Your task to perform on an android device: Clear the cart on amazon. Add energizer triple a to the cart on amazon Image 0: 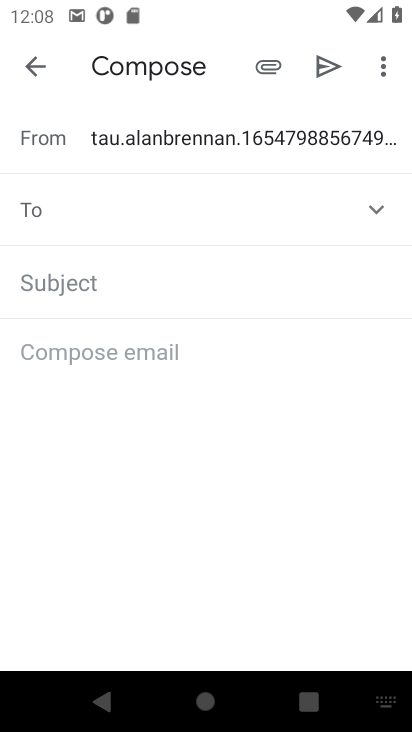
Step 0: press home button
Your task to perform on an android device: Clear the cart on amazon. Add energizer triple a to the cart on amazon Image 1: 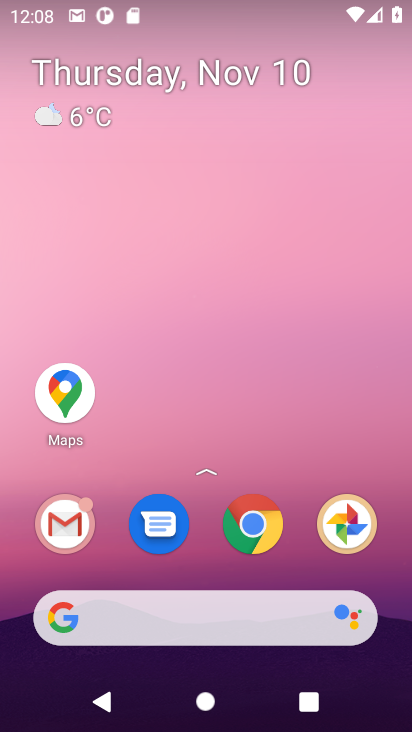
Step 1: click (252, 522)
Your task to perform on an android device: Clear the cart on amazon. Add energizer triple a to the cart on amazon Image 2: 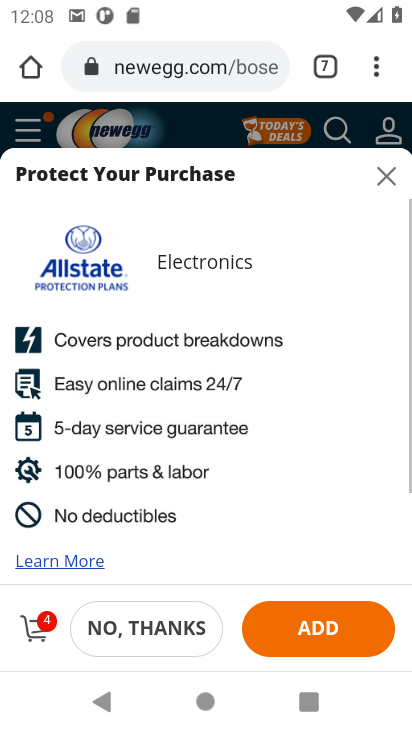
Step 2: click (322, 74)
Your task to perform on an android device: Clear the cart on amazon. Add energizer triple a to the cart on amazon Image 3: 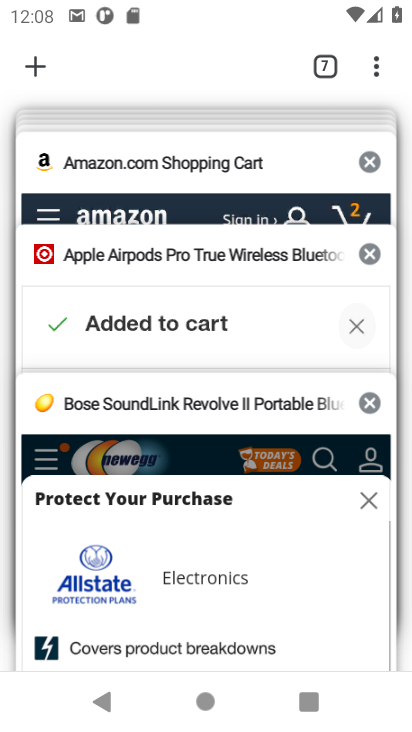
Step 3: click (194, 200)
Your task to perform on an android device: Clear the cart on amazon. Add energizer triple a to the cart on amazon Image 4: 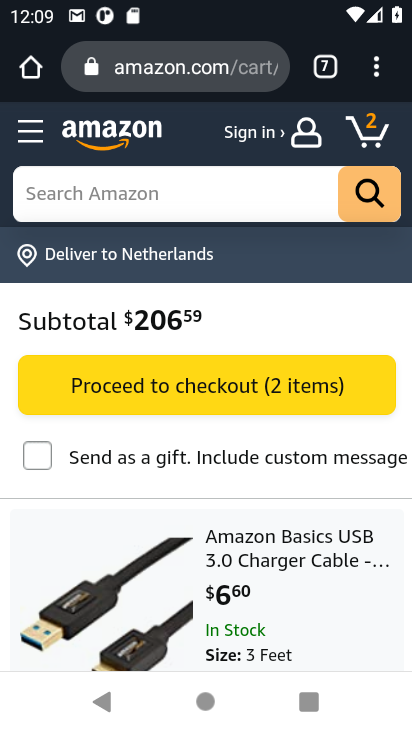
Step 4: click (120, 192)
Your task to perform on an android device: Clear the cart on amazon. Add energizer triple a to the cart on amazon Image 5: 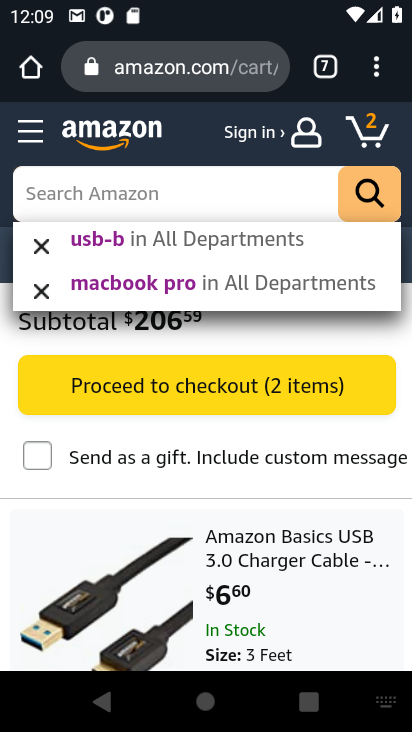
Step 5: type "energizer triple a"
Your task to perform on an android device: Clear the cart on amazon. Add energizer triple a to the cart on amazon Image 6: 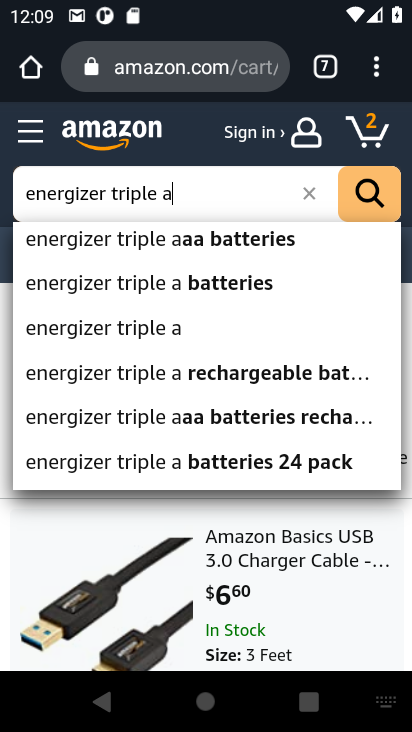
Step 6: click (168, 238)
Your task to perform on an android device: Clear the cart on amazon. Add energizer triple a to the cart on amazon Image 7: 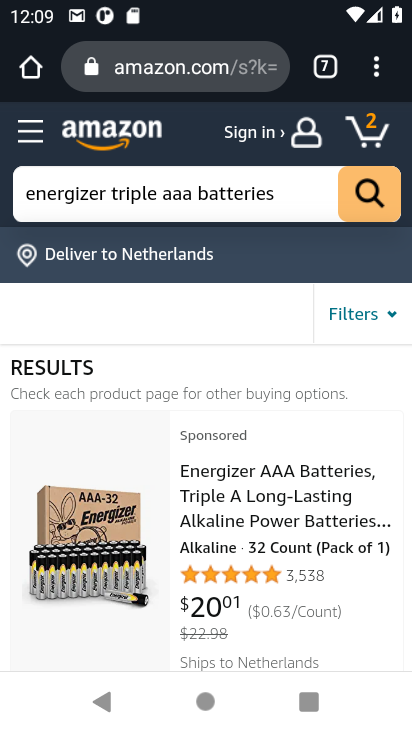
Step 7: click (257, 523)
Your task to perform on an android device: Clear the cart on amazon. Add energizer triple a to the cart on amazon Image 8: 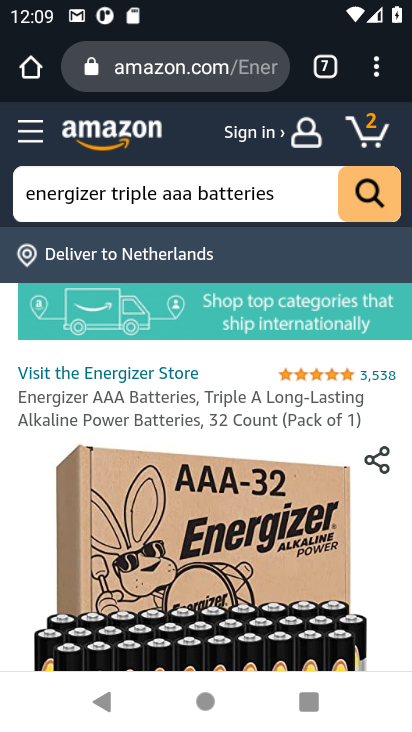
Step 8: drag from (363, 578) to (397, 31)
Your task to perform on an android device: Clear the cart on amazon. Add energizer triple a to the cart on amazon Image 9: 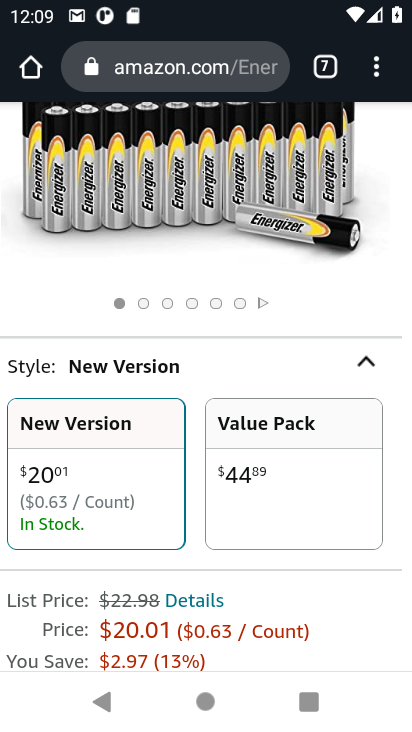
Step 9: drag from (277, 574) to (398, 159)
Your task to perform on an android device: Clear the cart on amazon. Add energizer triple a to the cart on amazon Image 10: 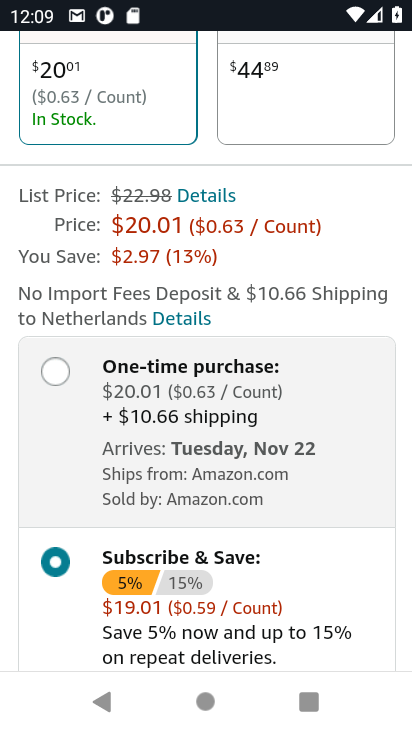
Step 10: drag from (257, 575) to (301, 239)
Your task to perform on an android device: Clear the cart on amazon. Add energizer triple a to the cart on amazon Image 11: 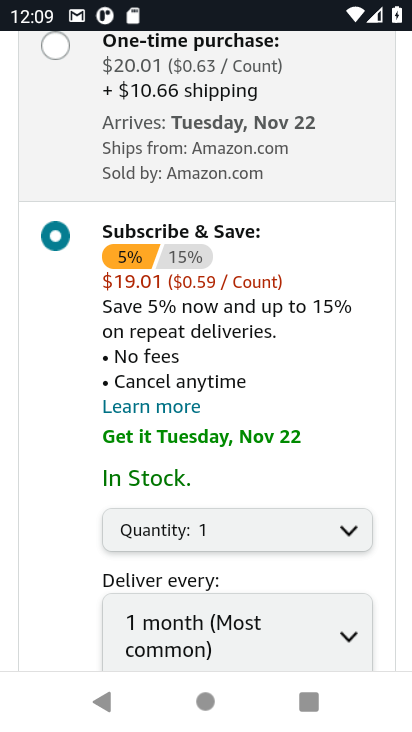
Step 11: drag from (257, 464) to (347, 118)
Your task to perform on an android device: Clear the cart on amazon. Add energizer triple a to the cart on amazon Image 12: 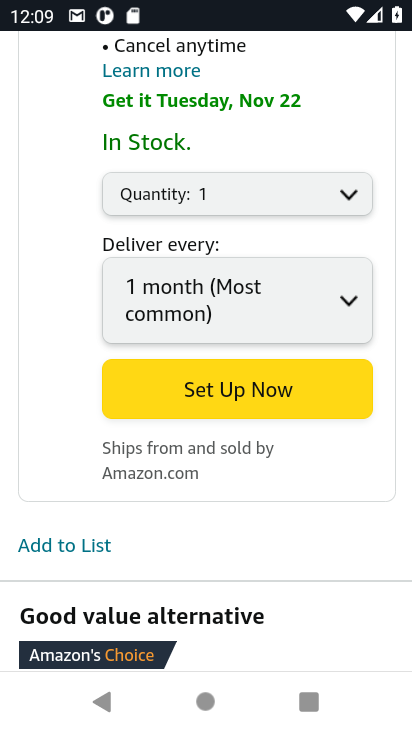
Step 12: drag from (229, 624) to (266, 274)
Your task to perform on an android device: Clear the cart on amazon. Add energizer triple a to the cart on amazon Image 13: 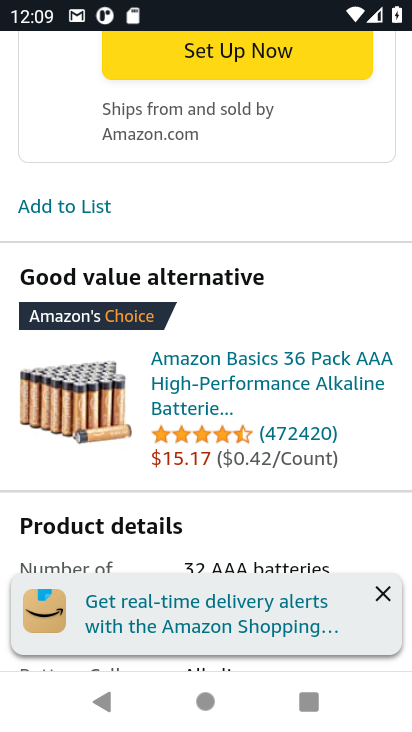
Step 13: click (318, 381)
Your task to perform on an android device: Clear the cart on amazon. Add energizer triple a to the cart on amazon Image 14: 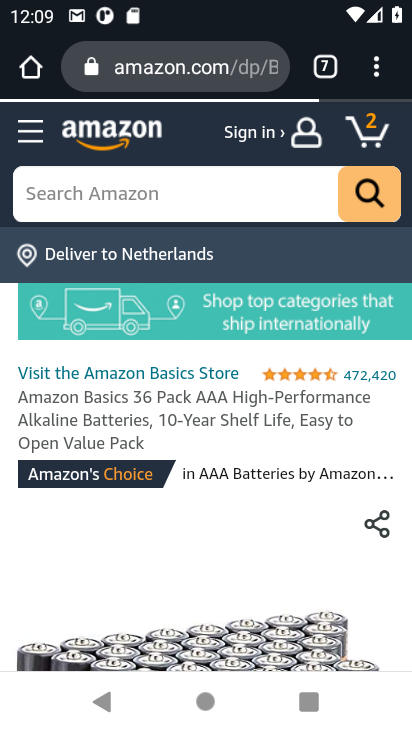
Step 14: drag from (277, 532) to (290, 318)
Your task to perform on an android device: Clear the cart on amazon. Add energizer triple a to the cart on amazon Image 15: 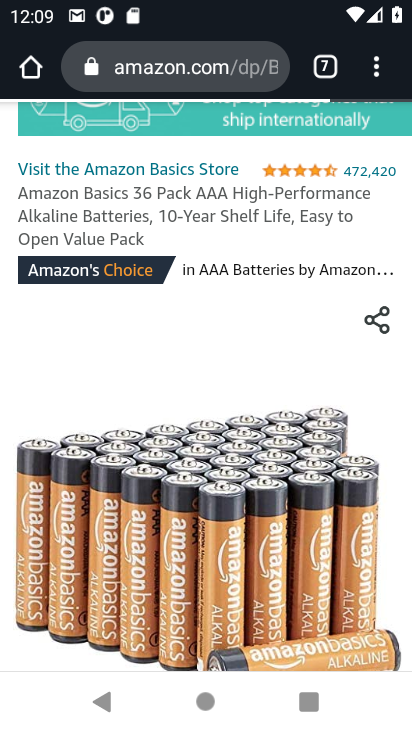
Step 15: drag from (289, 370) to (403, 100)
Your task to perform on an android device: Clear the cart on amazon. Add energizer triple a to the cart on amazon Image 16: 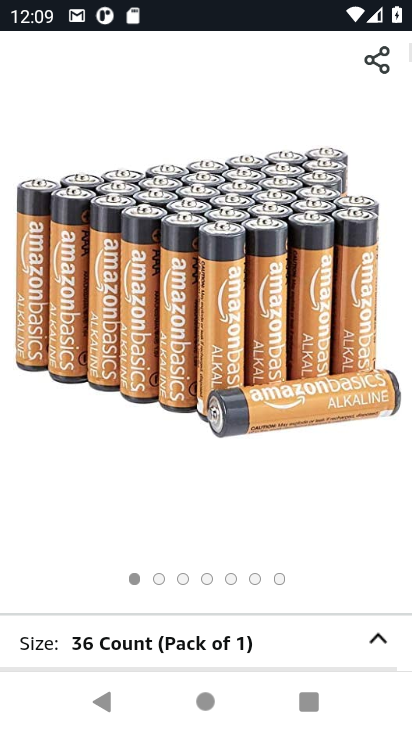
Step 16: drag from (265, 461) to (396, 223)
Your task to perform on an android device: Clear the cart on amazon. Add energizer triple a to the cart on amazon Image 17: 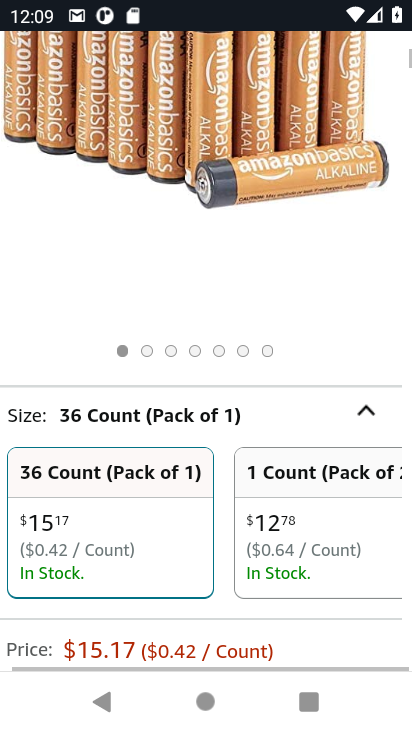
Step 17: drag from (229, 493) to (362, 165)
Your task to perform on an android device: Clear the cart on amazon. Add energizer triple a to the cart on amazon Image 18: 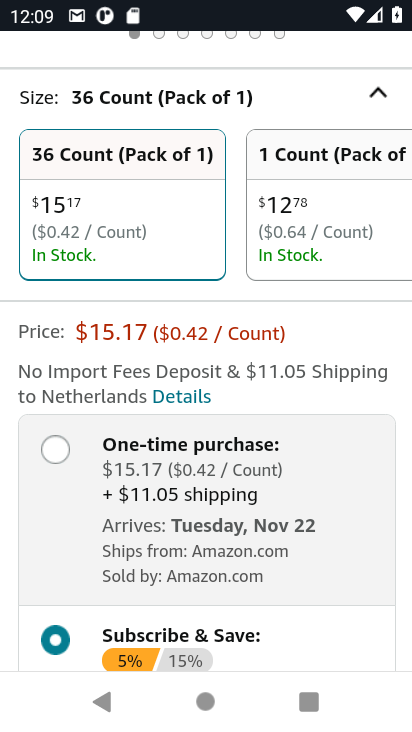
Step 18: drag from (251, 571) to (357, 513)
Your task to perform on an android device: Clear the cart on amazon. Add energizer triple a to the cart on amazon Image 19: 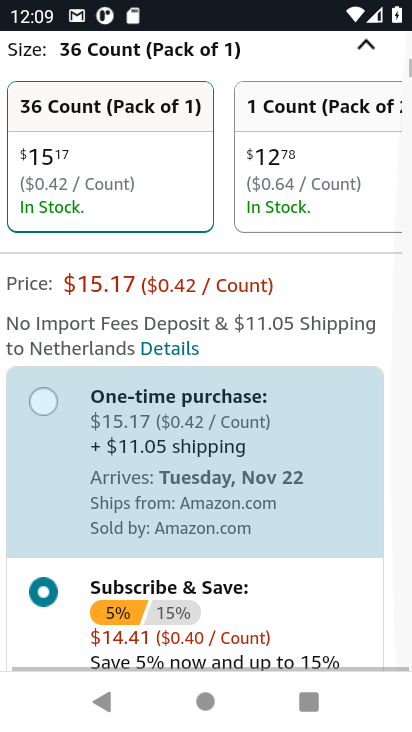
Step 19: drag from (217, 506) to (408, 208)
Your task to perform on an android device: Clear the cart on amazon. Add energizer triple a to the cart on amazon Image 20: 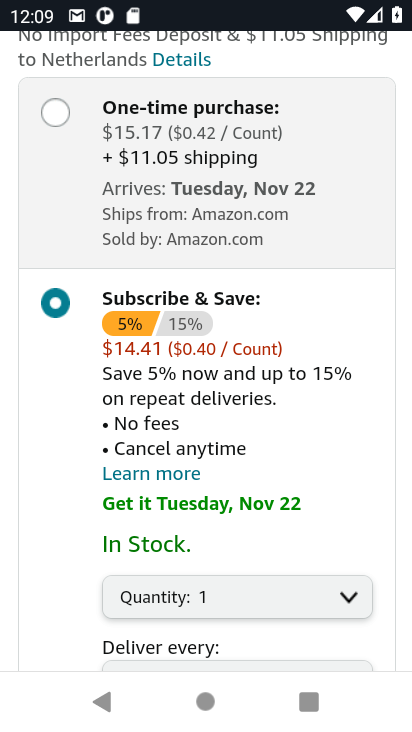
Step 20: drag from (224, 495) to (293, 348)
Your task to perform on an android device: Clear the cart on amazon. Add energizer triple a to the cart on amazon Image 21: 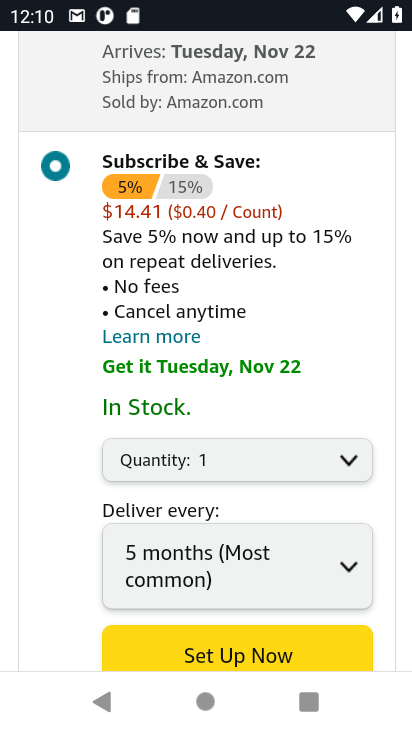
Step 21: drag from (279, 395) to (380, 106)
Your task to perform on an android device: Clear the cart on amazon. Add energizer triple a to the cart on amazon Image 22: 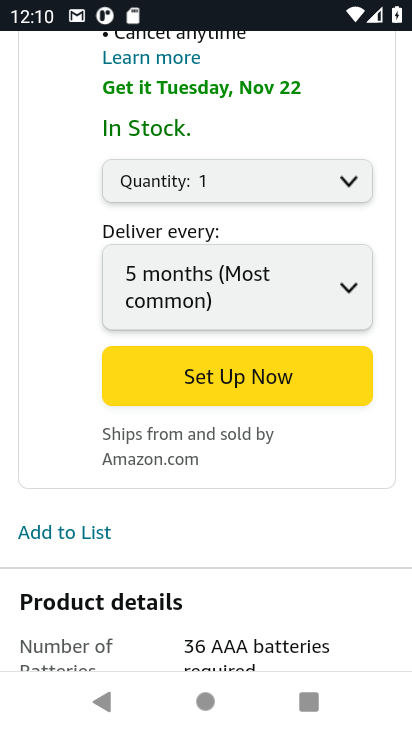
Step 22: drag from (258, 571) to (355, 290)
Your task to perform on an android device: Clear the cart on amazon. Add energizer triple a to the cart on amazon Image 23: 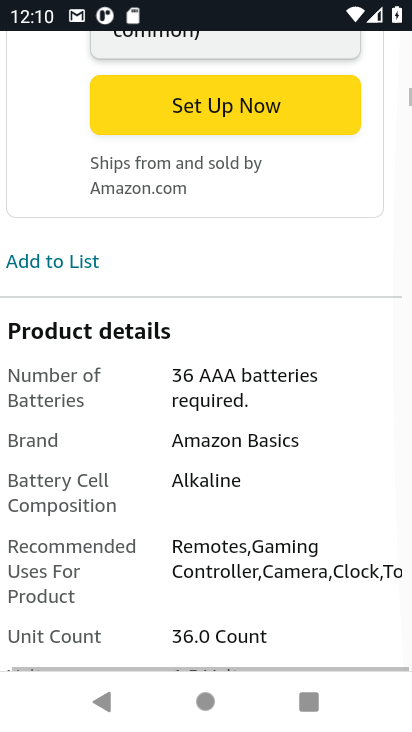
Step 23: drag from (262, 507) to (345, 171)
Your task to perform on an android device: Clear the cart on amazon. Add energizer triple a to the cart on amazon Image 24: 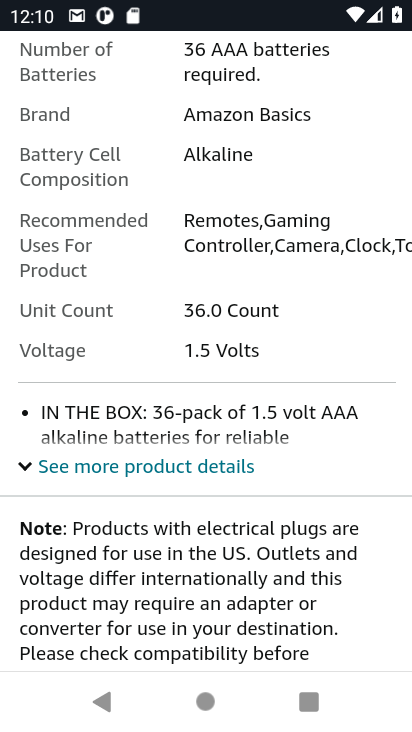
Step 24: drag from (205, 557) to (339, 235)
Your task to perform on an android device: Clear the cart on amazon. Add energizer triple a to the cart on amazon Image 25: 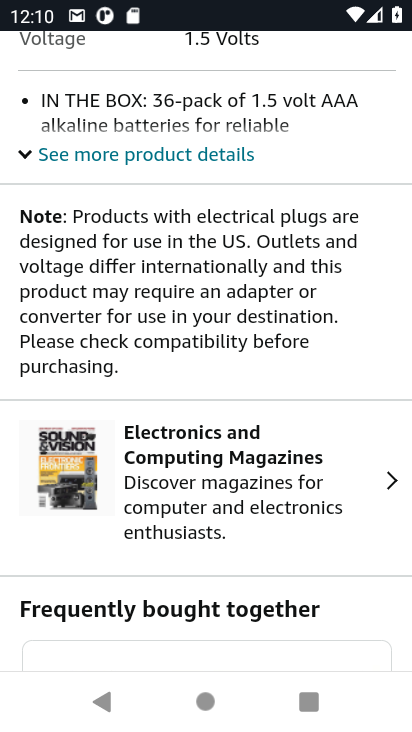
Step 25: drag from (266, 554) to (361, 198)
Your task to perform on an android device: Clear the cart on amazon. Add energizer triple a to the cart on amazon Image 26: 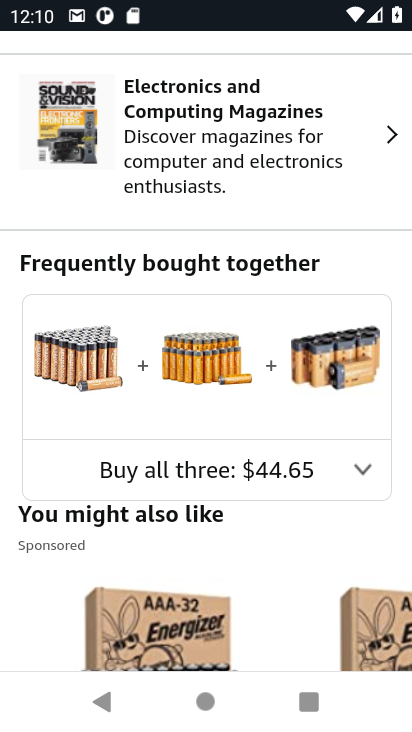
Step 26: drag from (247, 457) to (394, 167)
Your task to perform on an android device: Clear the cart on amazon. Add energizer triple a to the cart on amazon Image 27: 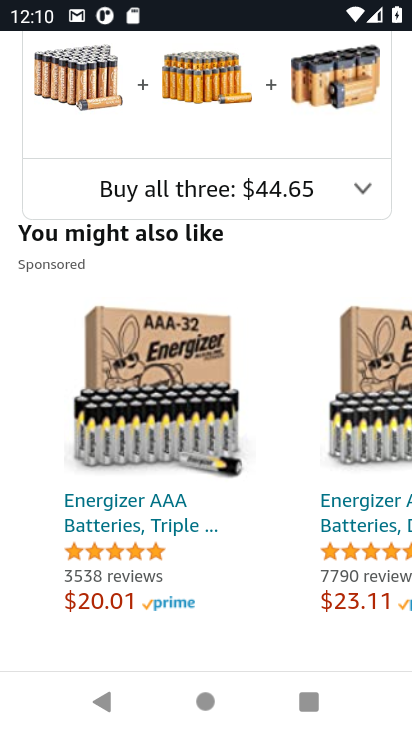
Step 27: drag from (166, 555) to (264, 328)
Your task to perform on an android device: Clear the cart on amazon. Add energizer triple a to the cart on amazon Image 28: 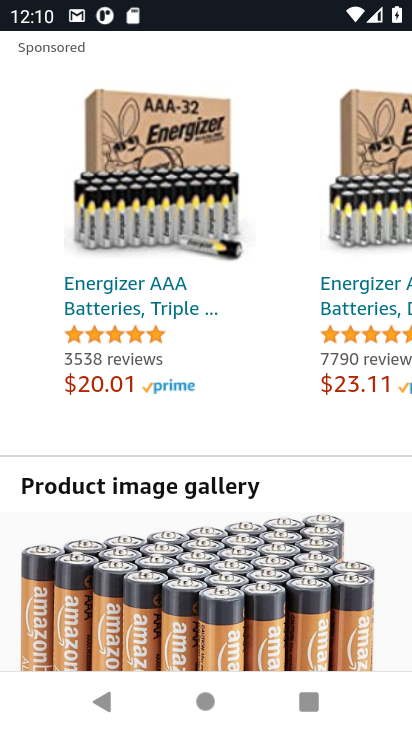
Step 28: click (155, 305)
Your task to perform on an android device: Clear the cart on amazon. Add energizer triple a to the cart on amazon Image 29: 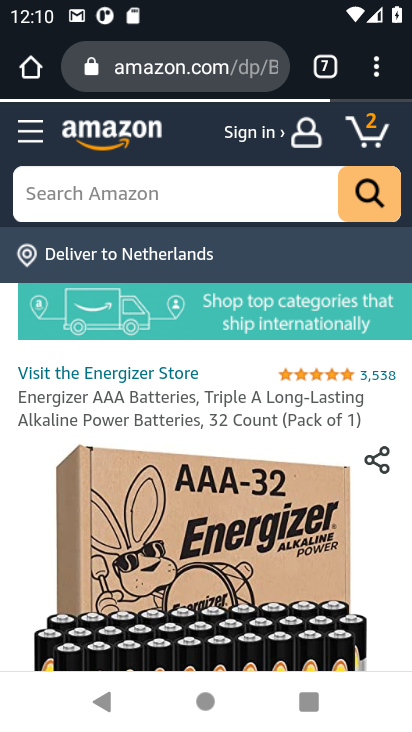
Step 29: task complete